Your task to perform on an android device: Open Youtube and go to "Your channel" Image 0: 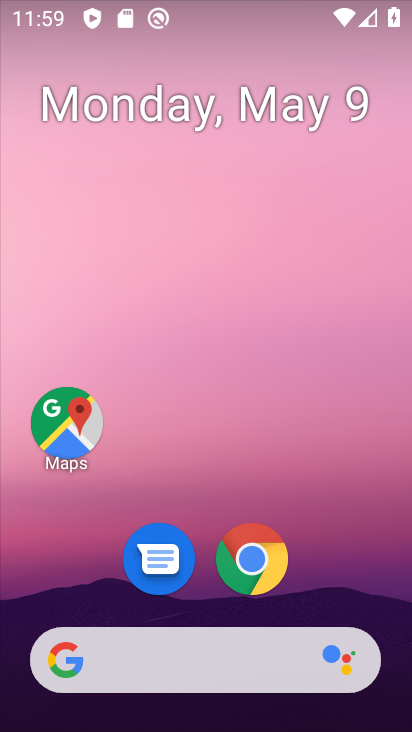
Step 0: drag from (213, 609) to (177, 22)
Your task to perform on an android device: Open Youtube and go to "Your channel" Image 1: 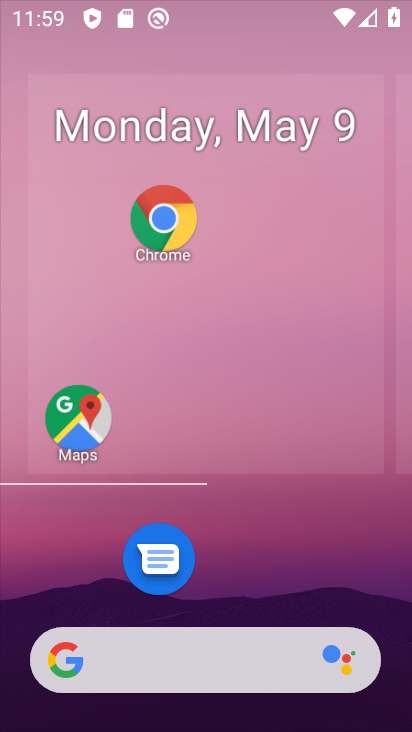
Step 1: drag from (245, 587) to (172, 0)
Your task to perform on an android device: Open Youtube and go to "Your channel" Image 2: 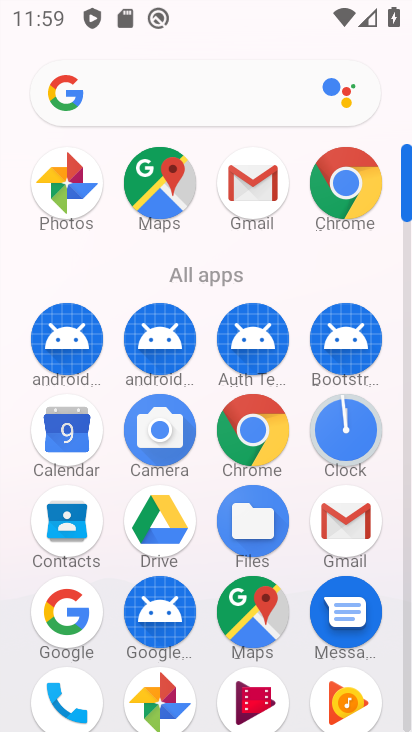
Step 2: drag from (210, 586) to (185, 65)
Your task to perform on an android device: Open Youtube and go to "Your channel" Image 3: 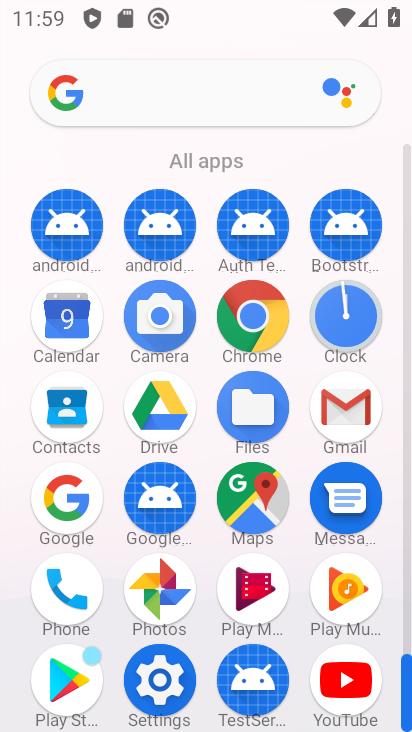
Step 3: click (356, 666)
Your task to perform on an android device: Open Youtube and go to "Your channel" Image 4: 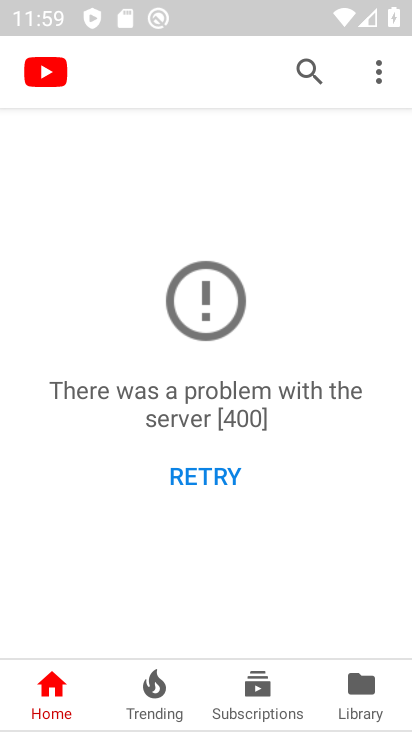
Step 4: click (383, 82)
Your task to perform on an android device: Open Youtube and go to "Your channel" Image 5: 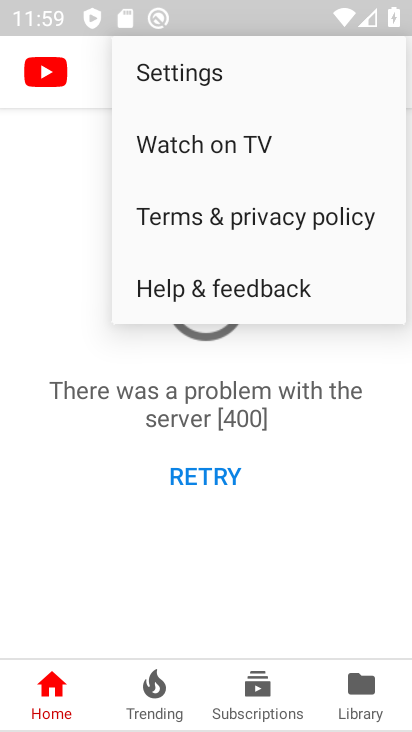
Step 5: click (230, 489)
Your task to perform on an android device: Open Youtube and go to "Your channel" Image 6: 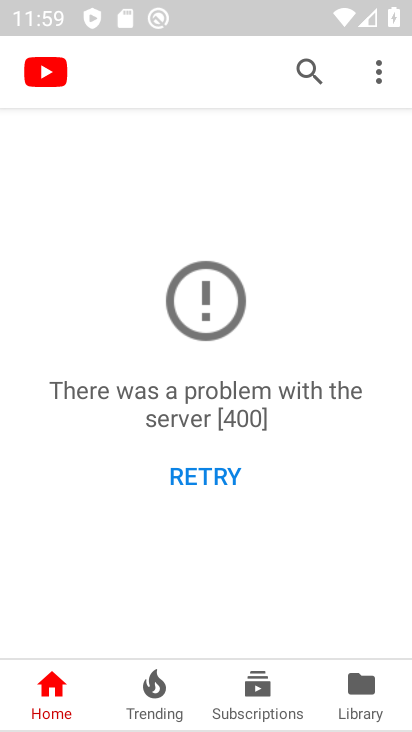
Step 6: click (228, 476)
Your task to perform on an android device: Open Youtube and go to "Your channel" Image 7: 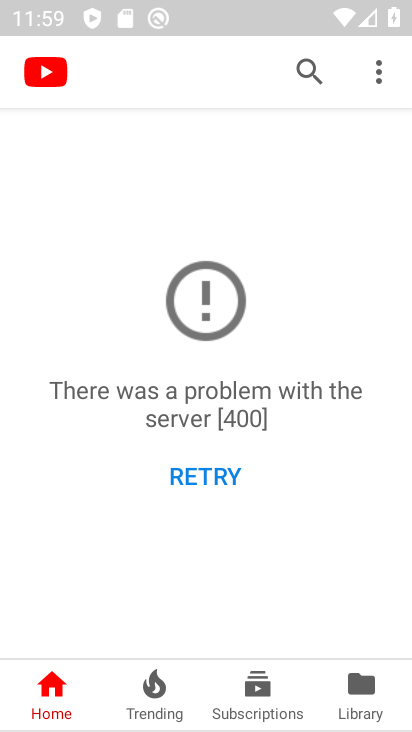
Step 7: click (228, 476)
Your task to perform on an android device: Open Youtube and go to "Your channel" Image 8: 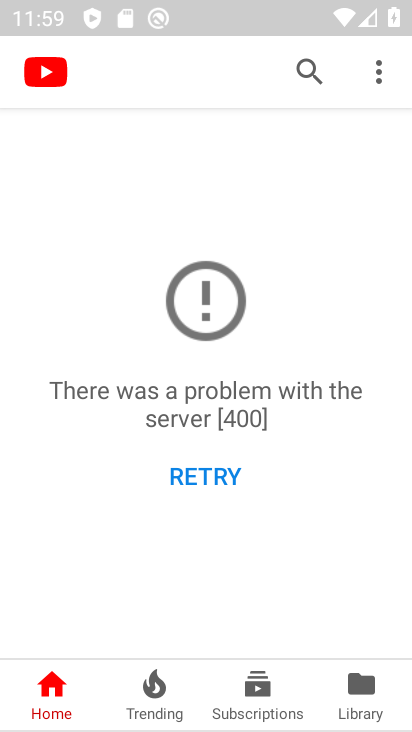
Step 8: task complete